Your task to perform on an android device: Add asus rog to the cart on ebay.com Image 0: 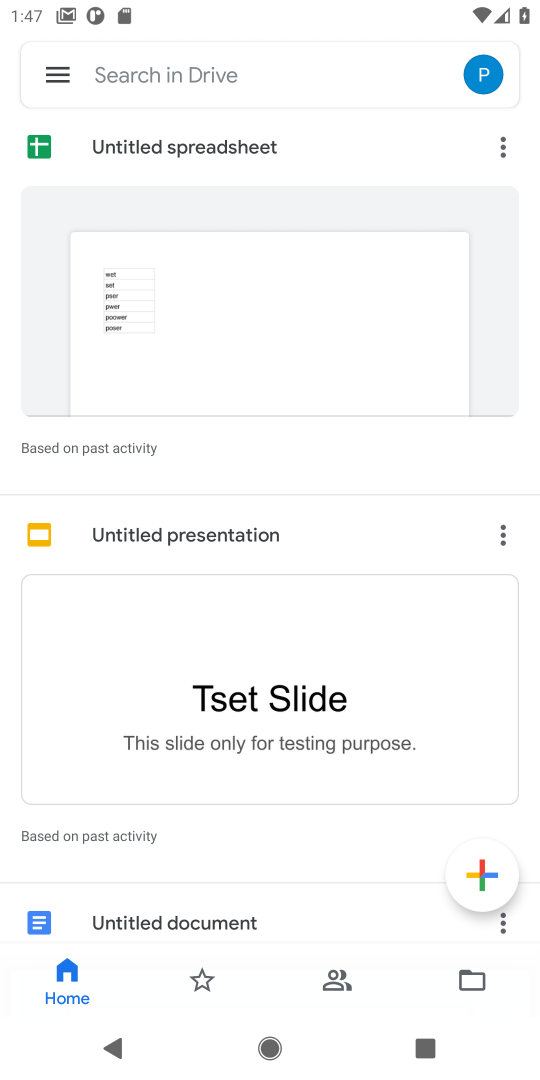
Step 0: press home button
Your task to perform on an android device: Add asus rog to the cart on ebay.com Image 1: 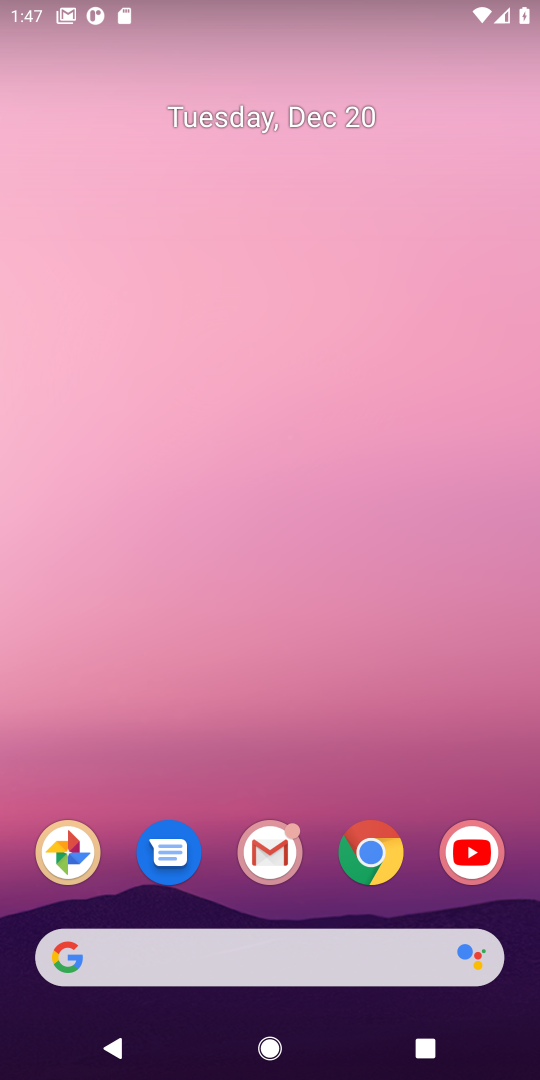
Step 1: click (375, 861)
Your task to perform on an android device: Add asus rog to the cart on ebay.com Image 2: 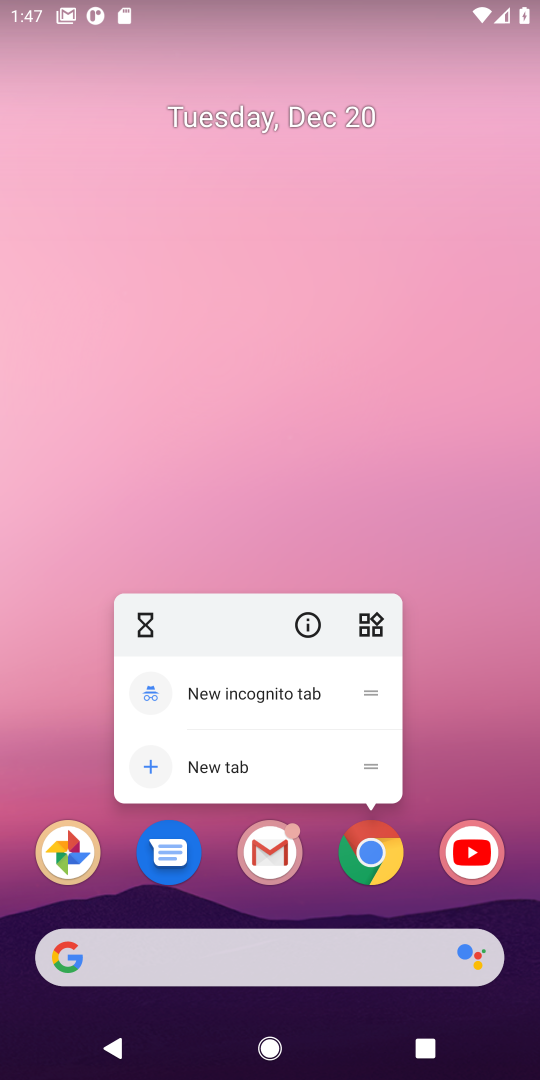
Step 2: click (375, 861)
Your task to perform on an android device: Add asus rog to the cart on ebay.com Image 3: 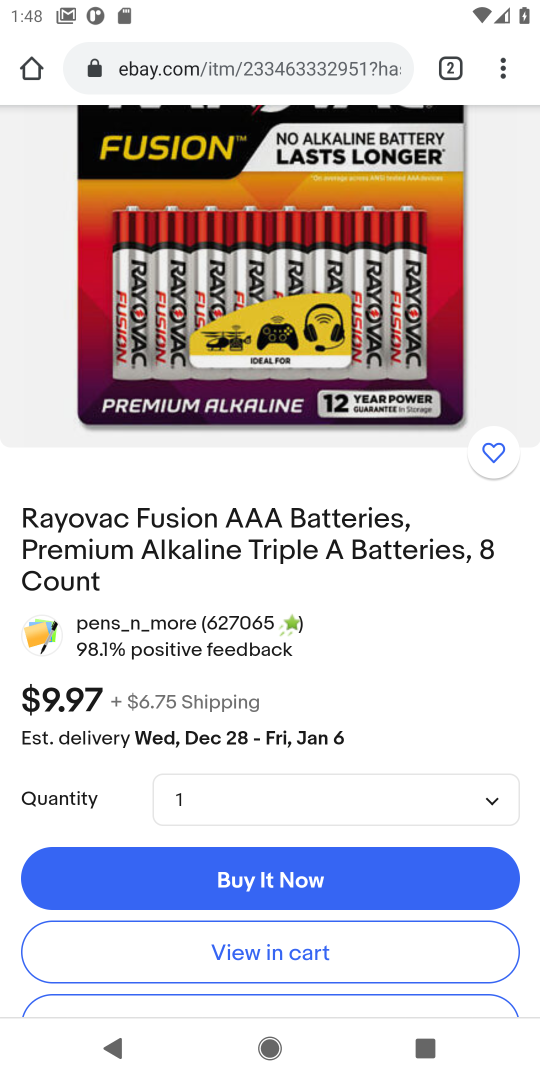
Step 3: drag from (309, 340) to (317, 1017)
Your task to perform on an android device: Add asus rog to the cart on ebay.com Image 4: 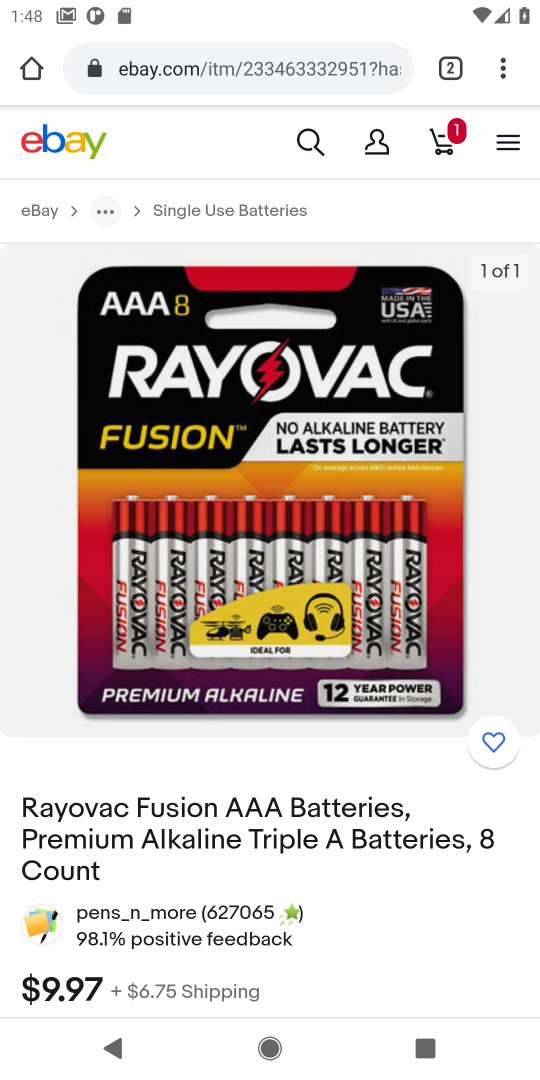
Step 4: click (304, 144)
Your task to perform on an android device: Add asus rog to the cart on ebay.com Image 5: 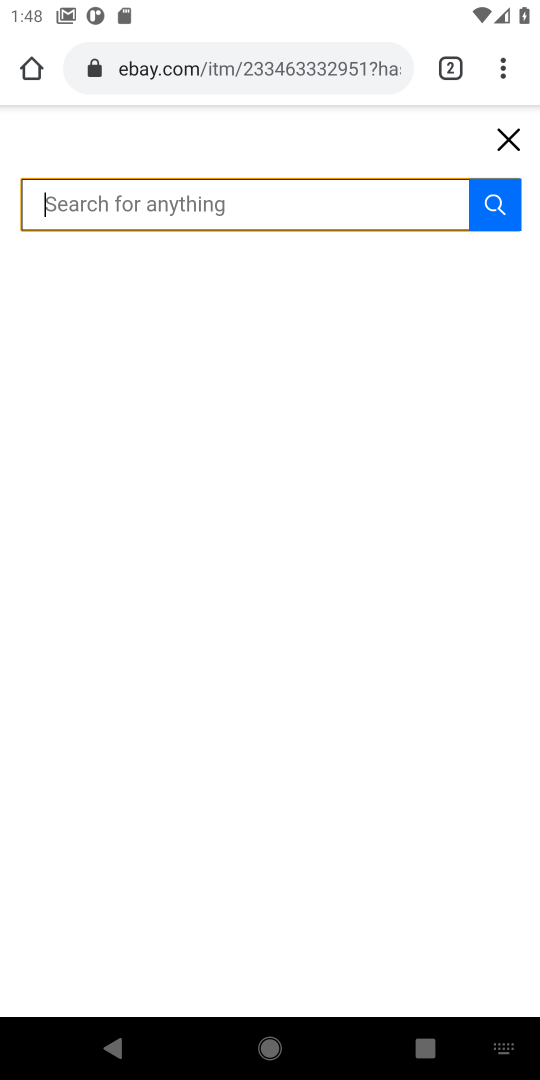
Step 5: type "asus rog"
Your task to perform on an android device: Add asus rog to the cart on ebay.com Image 6: 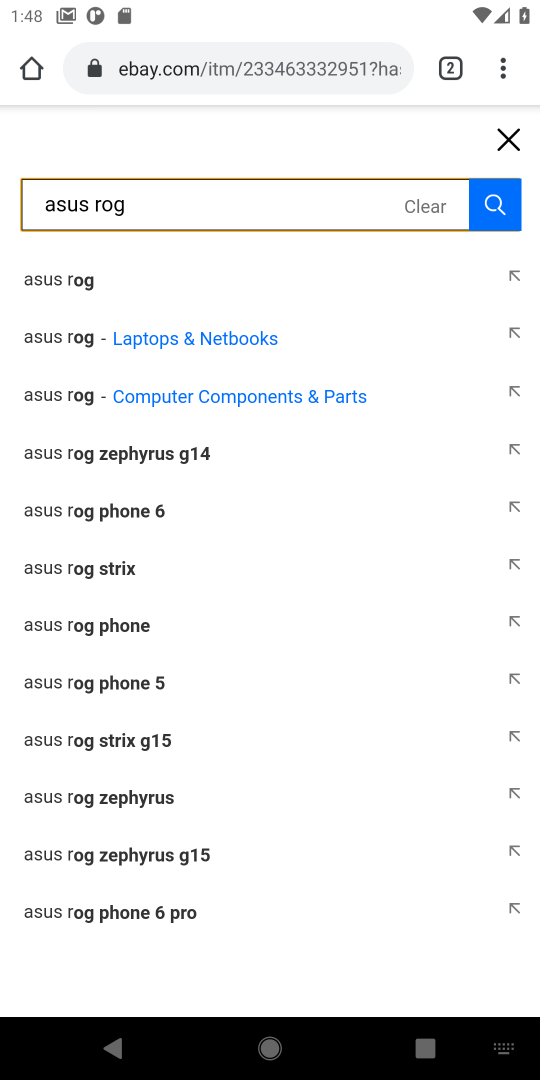
Step 6: click (68, 284)
Your task to perform on an android device: Add asus rog to the cart on ebay.com Image 7: 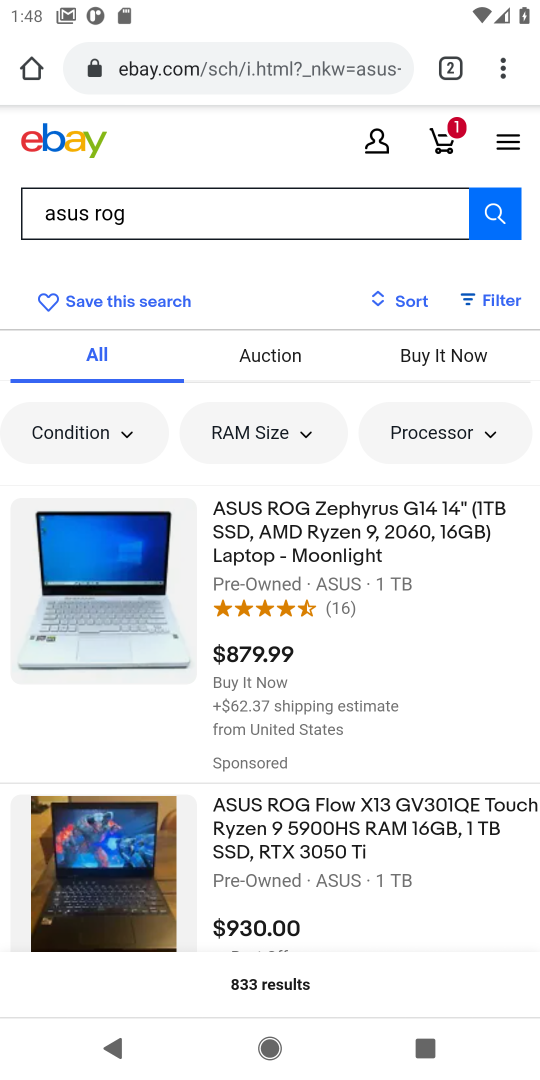
Step 7: click (288, 559)
Your task to perform on an android device: Add asus rog to the cart on ebay.com Image 8: 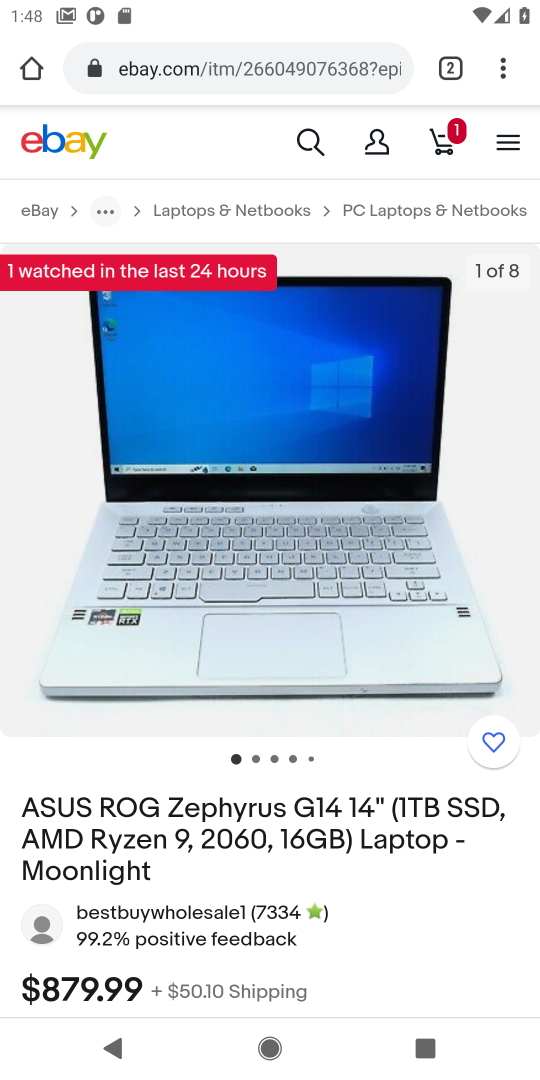
Step 8: drag from (270, 788) to (280, 263)
Your task to perform on an android device: Add asus rog to the cart on ebay.com Image 9: 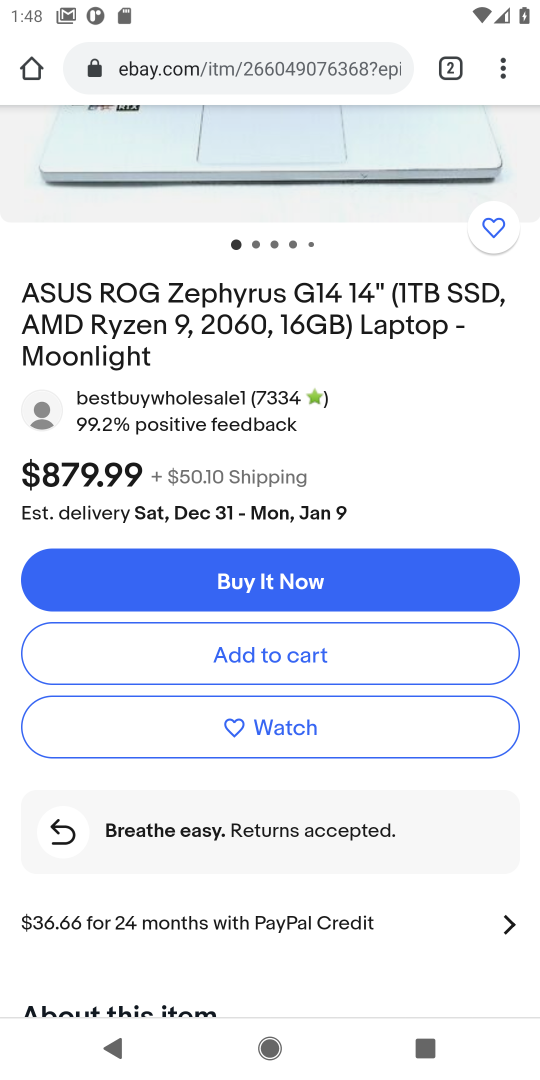
Step 9: click (240, 650)
Your task to perform on an android device: Add asus rog to the cart on ebay.com Image 10: 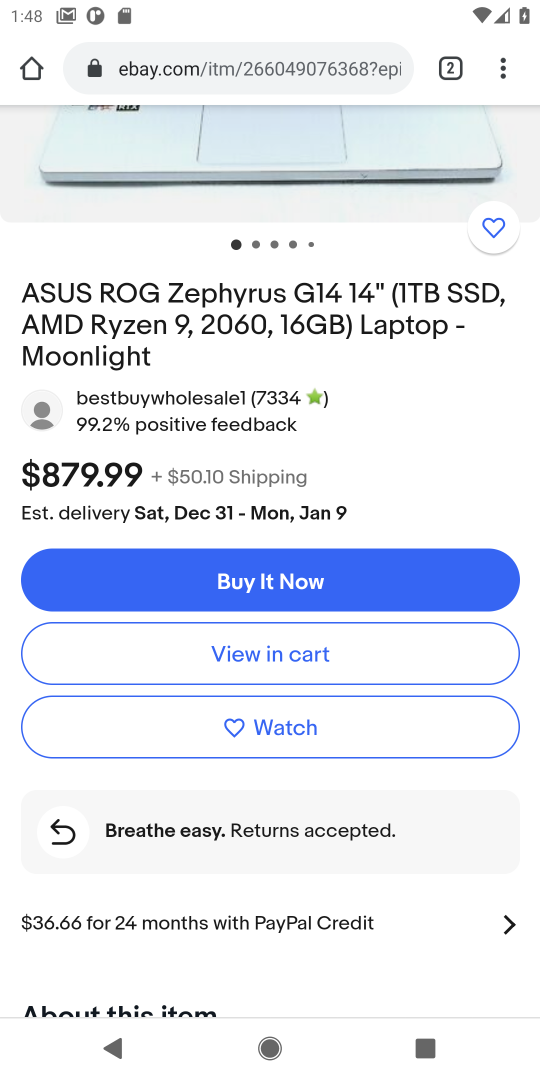
Step 10: task complete